Your task to perform on an android device: open app "Pluto TV - Live TV and Movies" (install if not already installed) Image 0: 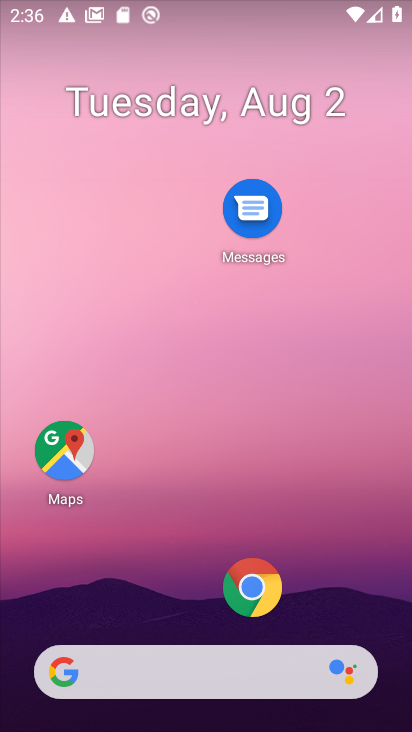
Step 0: drag from (183, 607) to (186, 286)
Your task to perform on an android device: open app "Pluto TV - Live TV and Movies" (install if not already installed) Image 1: 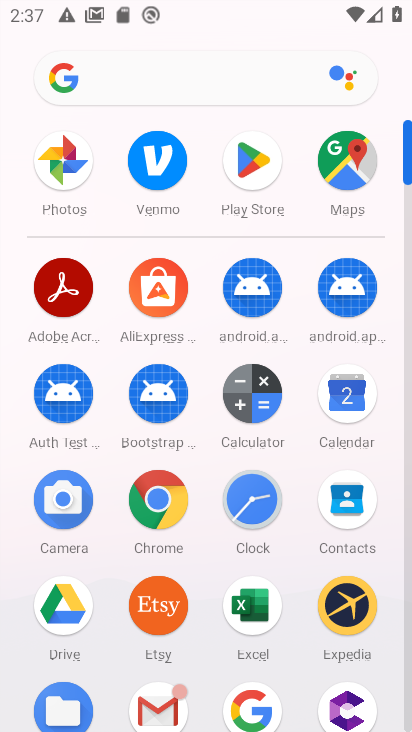
Step 1: click (248, 164)
Your task to perform on an android device: open app "Pluto TV - Live TV and Movies" (install if not already installed) Image 2: 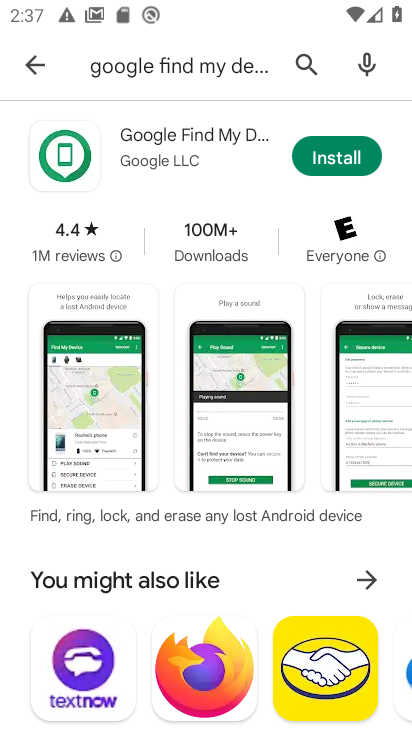
Step 2: click (312, 66)
Your task to perform on an android device: open app "Pluto TV - Live TV and Movies" (install if not already installed) Image 3: 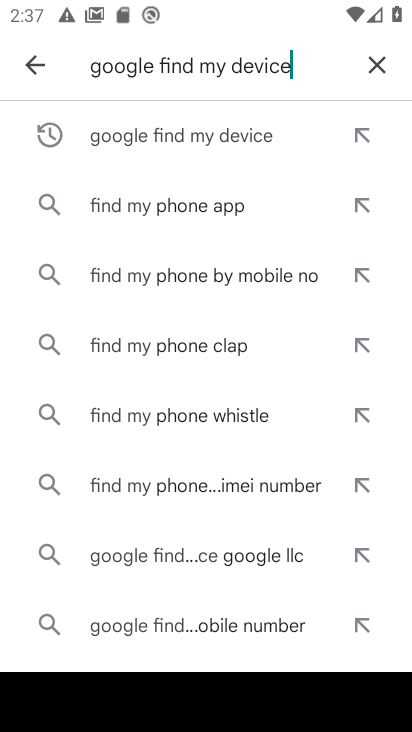
Step 3: click (368, 63)
Your task to perform on an android device: open app "Pluto TV - Live TV and Movies" (install if not already installed) Image 4: 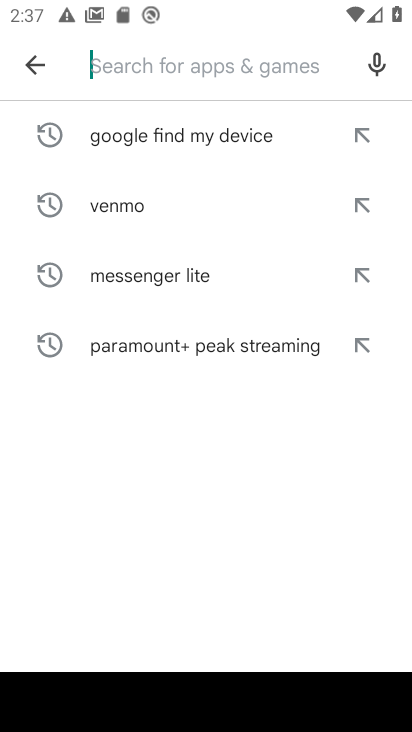
Step 4: type "Pluto TV - Live TV and Movies"
Your task to perform on an android device: open app "Pluto TV - Live TV and Movies" (install if not already installed) Image 5: 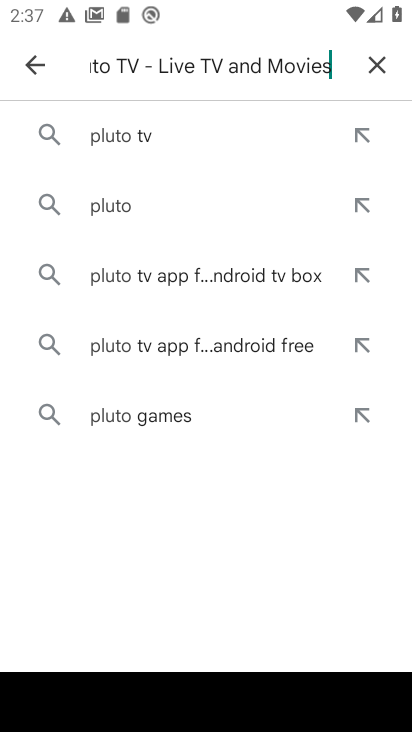
Step 5: type ""
Your task to perform on an android device: open app "Pluto TV - Live TV and Movies" (install if not already installed) Image 6: 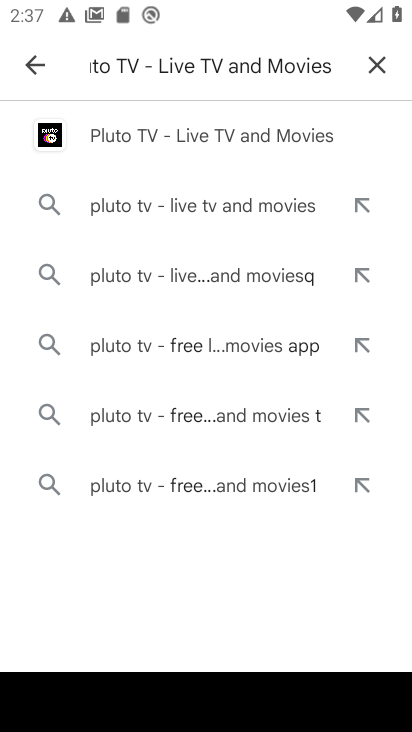
Step 6: click (180, 144)
Your task to perform on an android device: open app "Pluto TV - Live TV and Movies" (install if not already installed) Image 7: 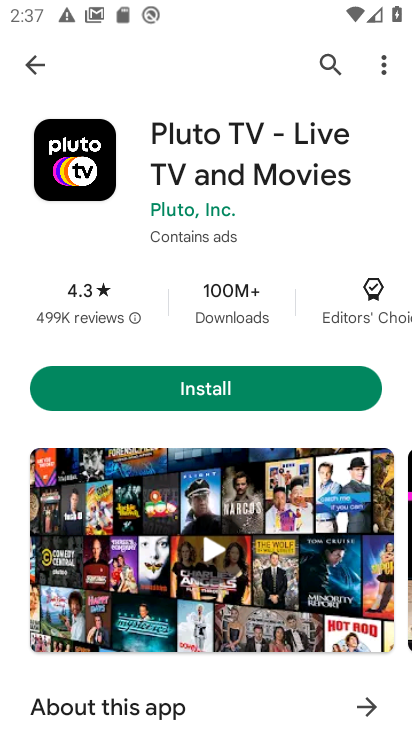
Step 7: click (267, 378)
Your task to perform on an android device: open app "Pluto TV - Live TV and Movies" (install if not already installed) Image 8: 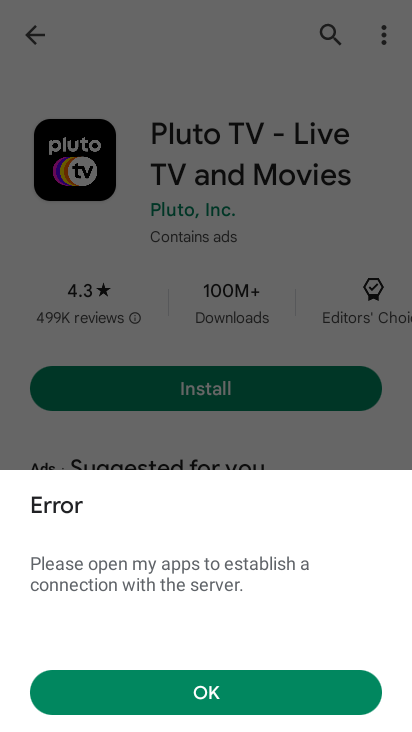
Step 8: click (250, 686)
Your task to perform on an android device: open app "Pluto TV - Live TV and Movies" (install if not already installed) Image 9: 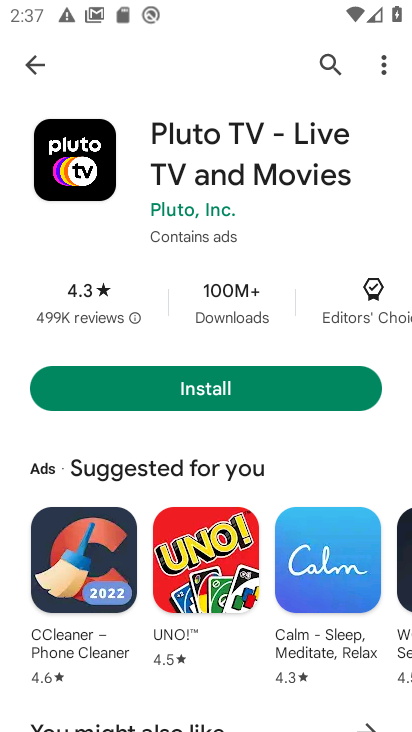
Step 9: click (289, 384)
Your task to perform on an android device: open app "Pluto TV - Live TV and Movies" (install if not already installed) Image 10: 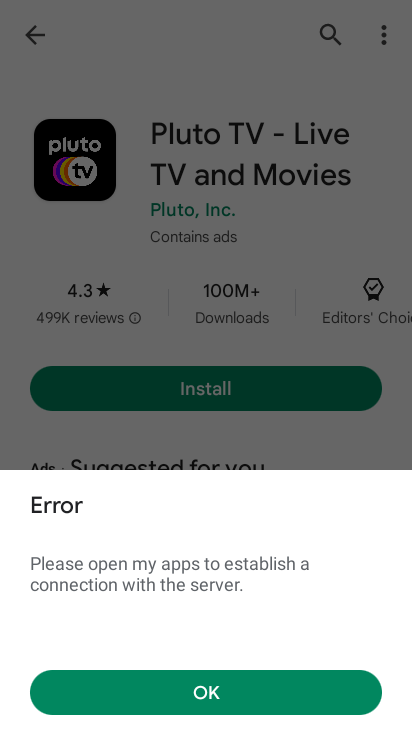
Step 10: task complete